Your task to perform on an android device: How much does a 2 bedroom apartment rent for in San Francisco? Image 0: 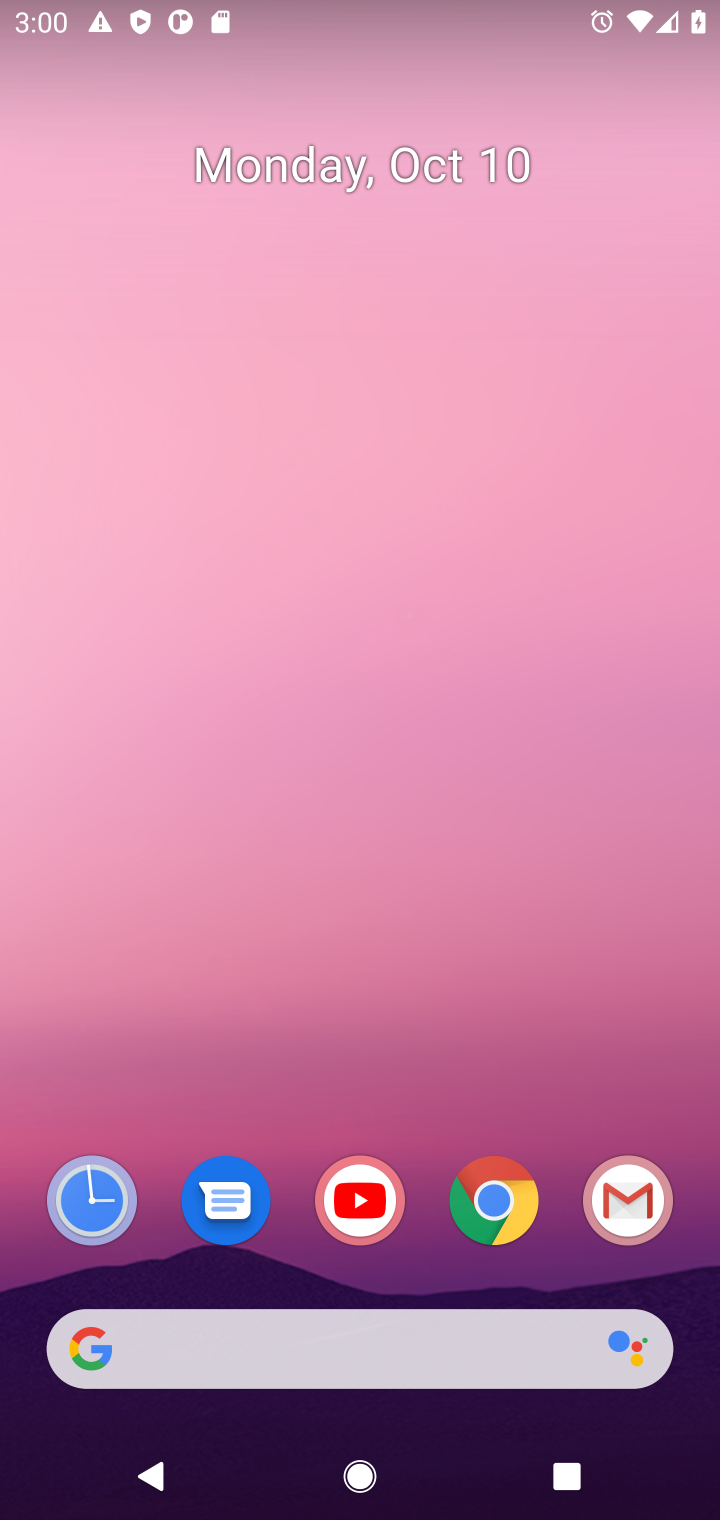
Step 0: click (512, 1201)
Your task to perform on an android device: How much does a 2 bedroom apartment rent for in San Francisco? Image 1: 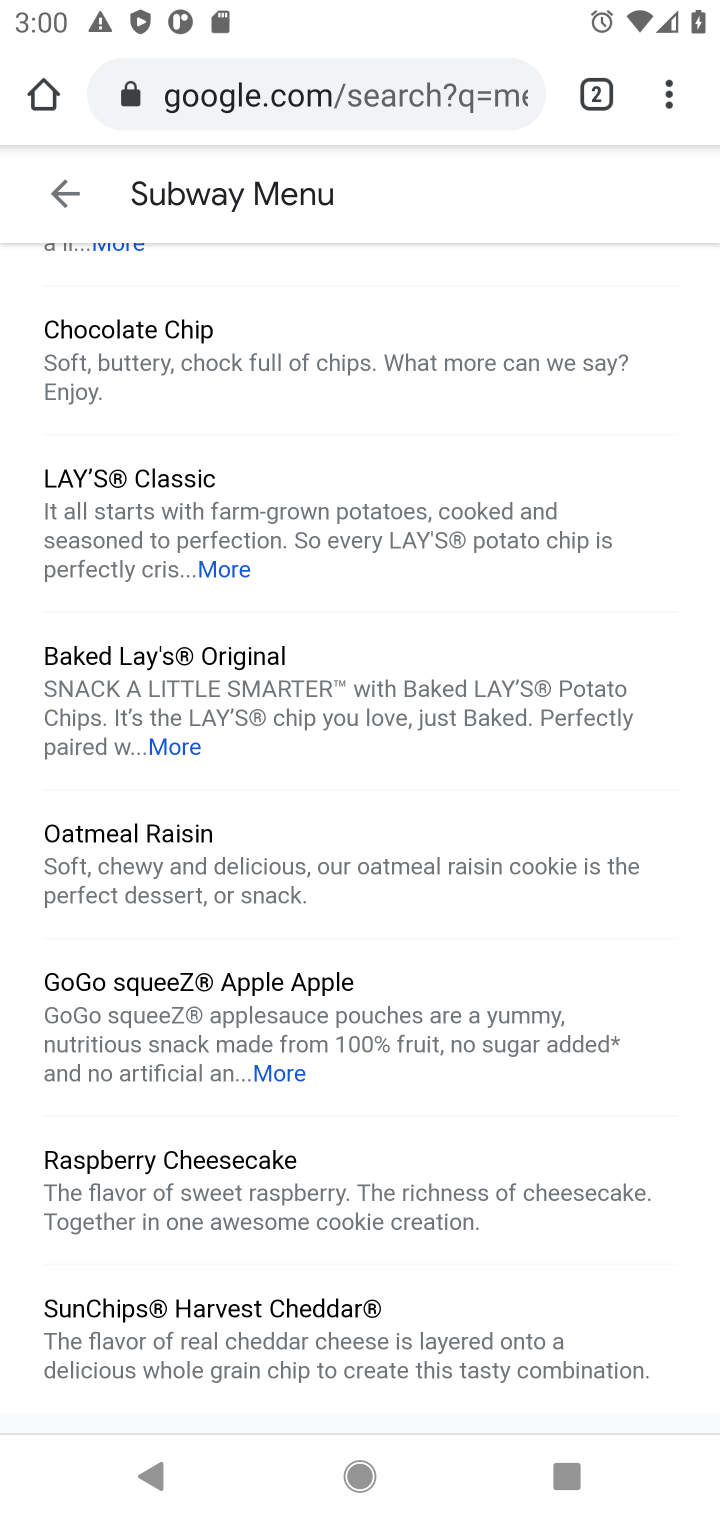
Step 1: click (434, 86)
Your task to perform on an android device: How much does a 2 bedroom apartment rent for in San Francisco? Image 2: 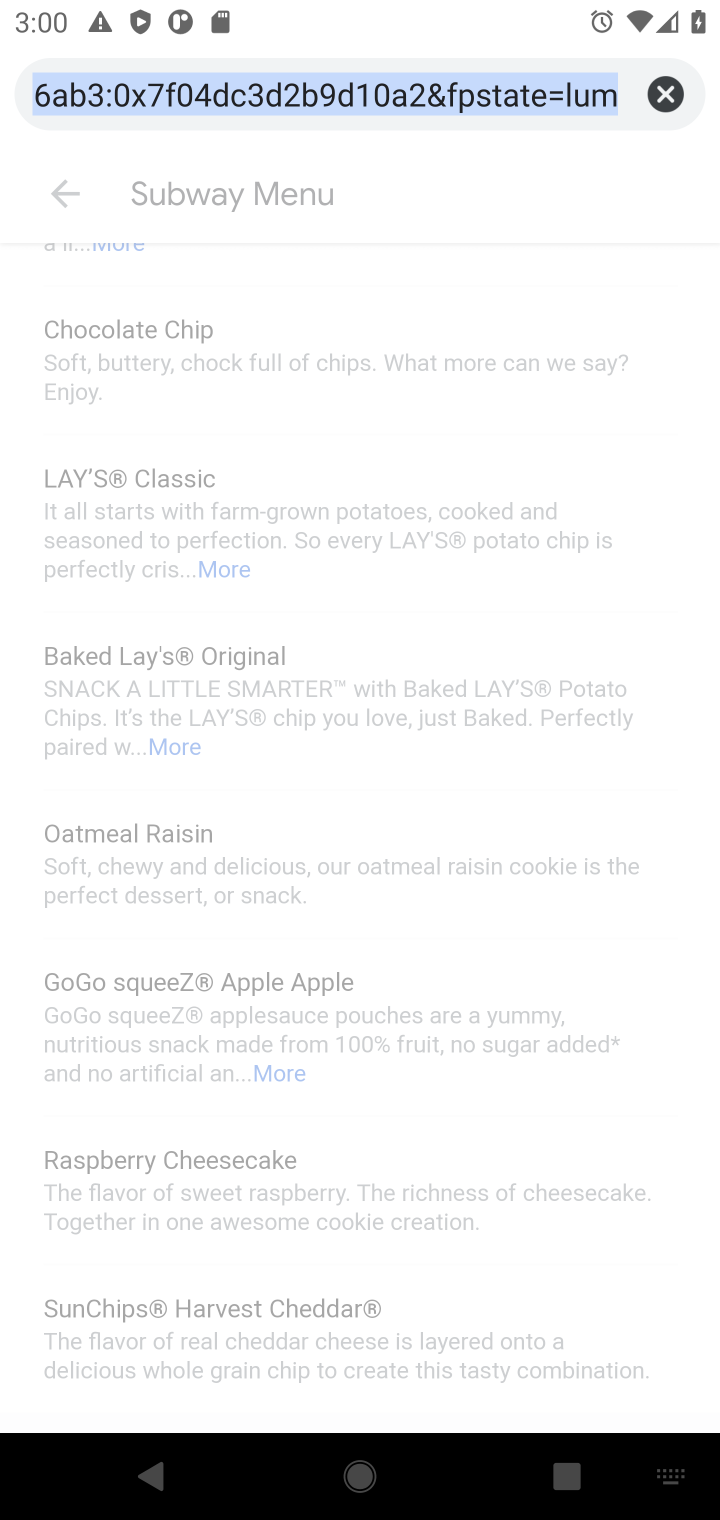
Step 2: type "2 bedroom apartment rent for in San Francisco"
Your task to perform on an android device: How much does a 2 bedroom apartment rent for in San Francisco? Image 3: 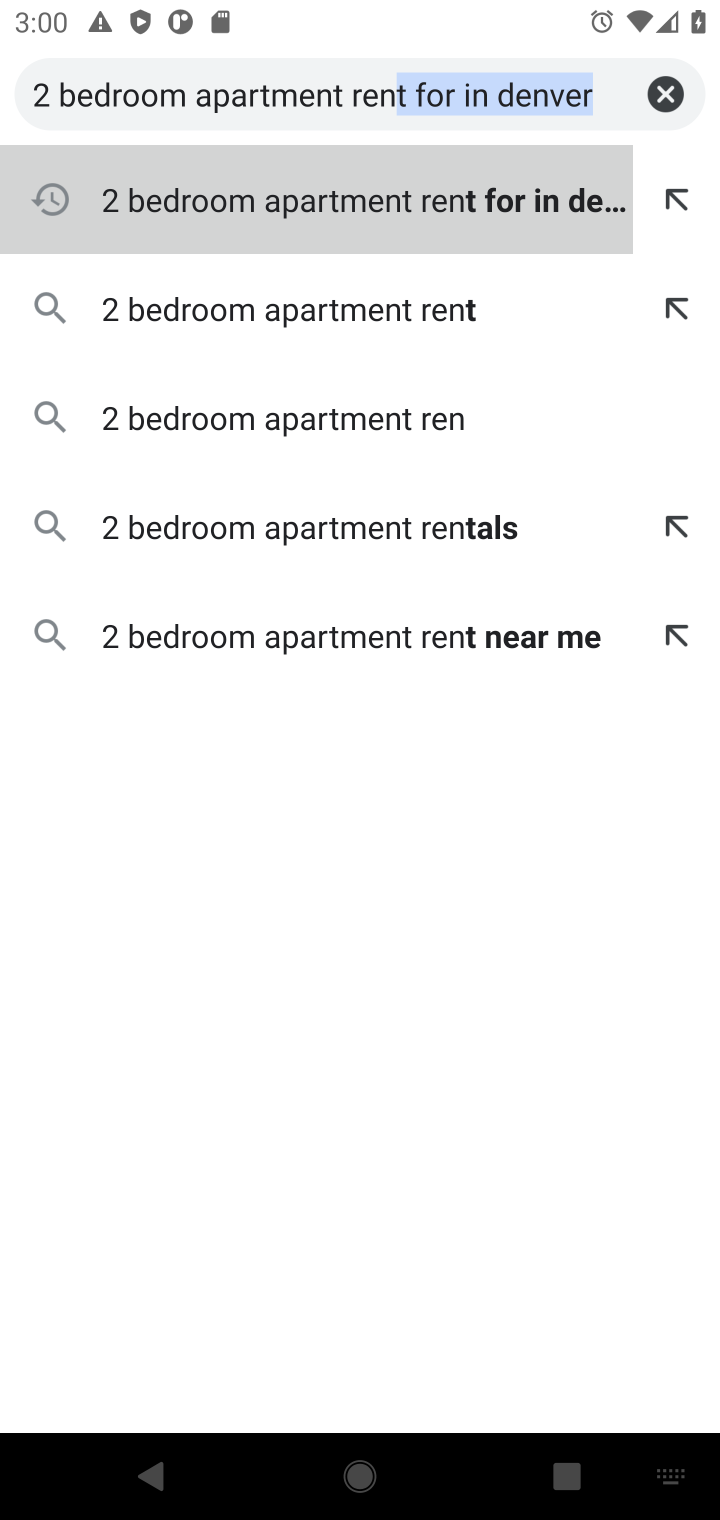
Step 3: click (431, 205)
Your task to perform on an android device: How much does a 2 bedroom apartment rent for in San Francisco? Image 4: 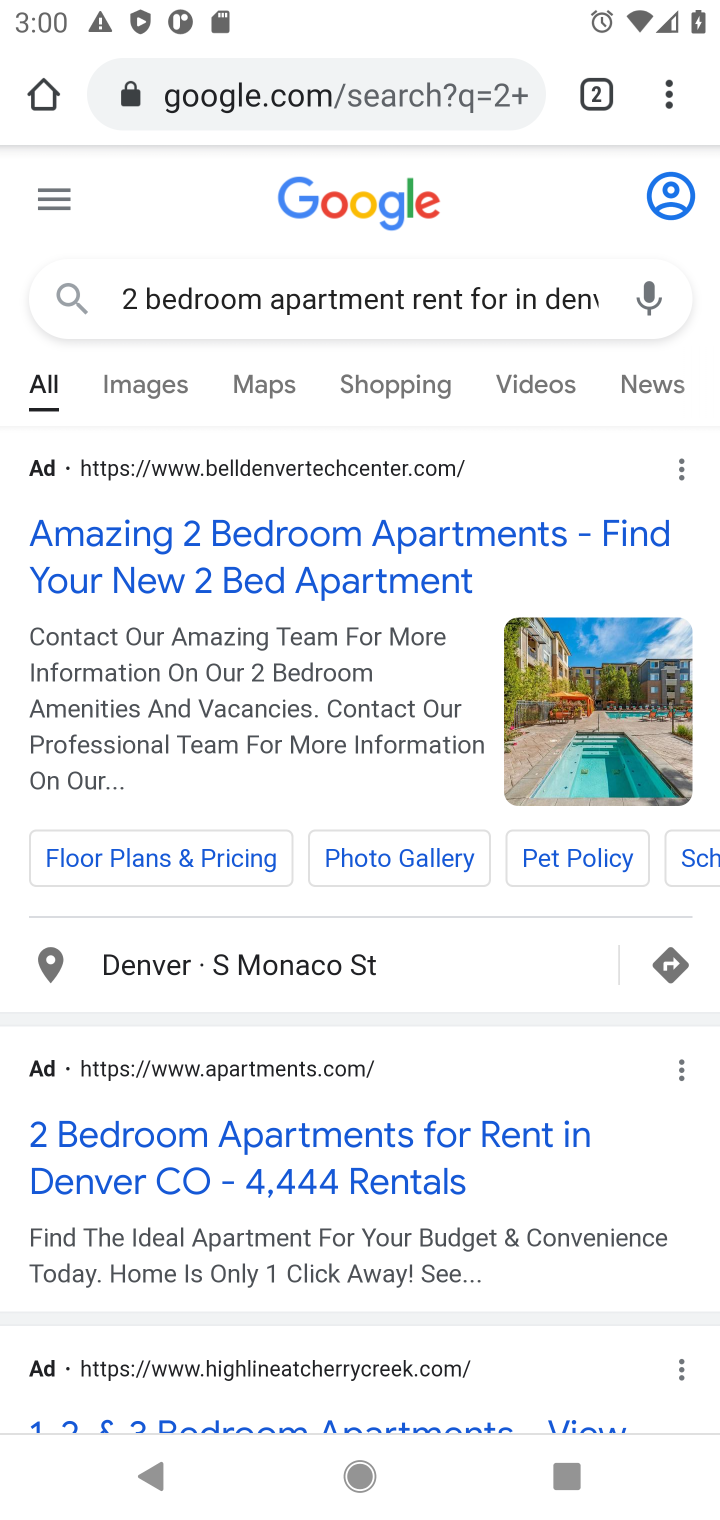
Step 4: click (228, 1154)
Your task to perform on an android device: How much does a 2 bedroom apartment rent for in San Francisco? Image 5: 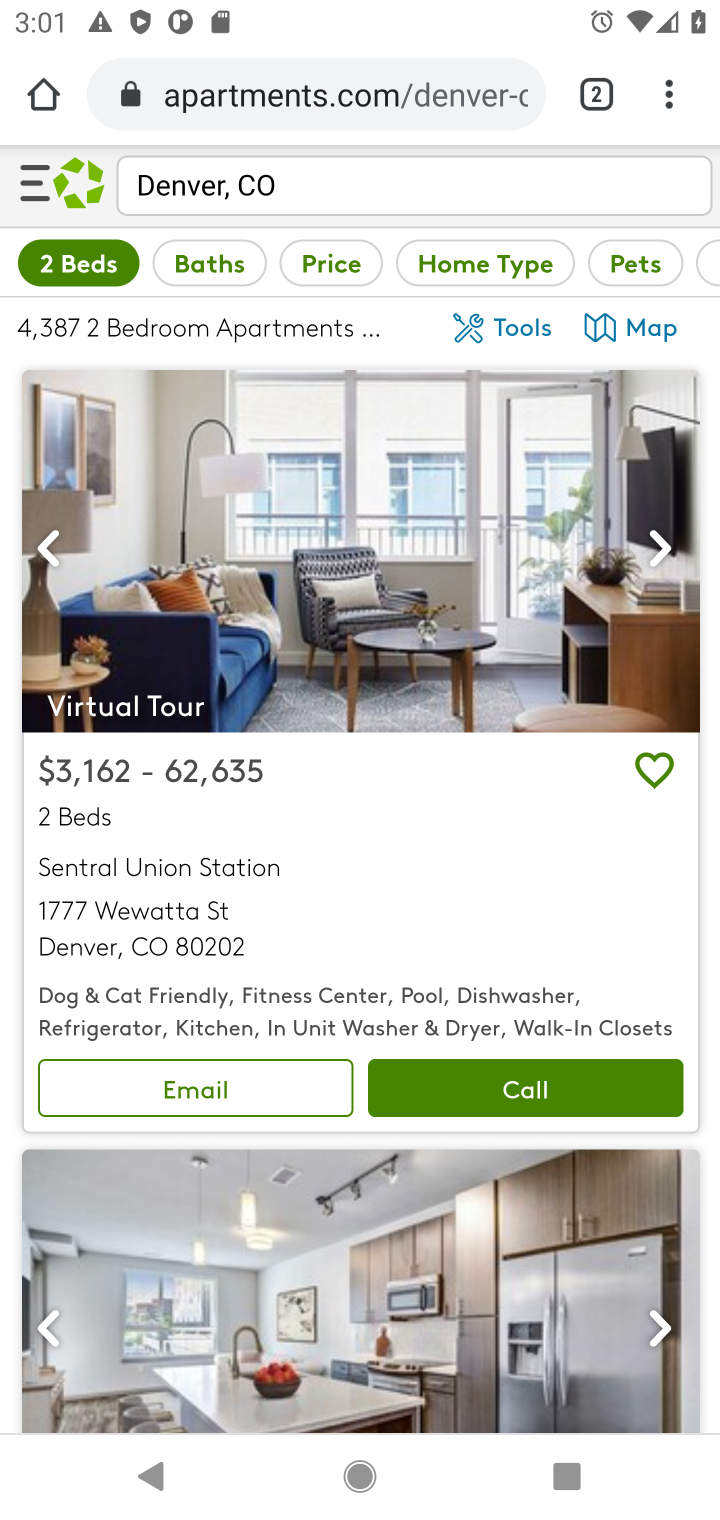
Step 5: task complete